Your task to perform on an android device: Search for Mexican restaurants on Maps Image 0: 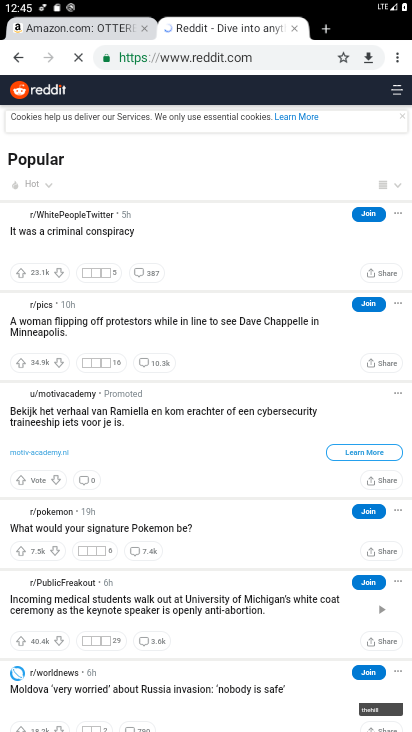
Step 0: press home button
Your task to perform on an android device: Search for Mexican restaurants on Maps Image 1: 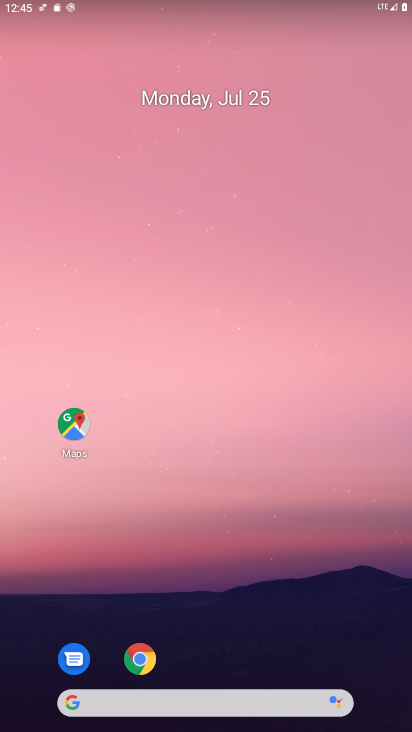
Step 1: click (74, 424)
Your task to perform on an android device: Search for Mexican restaurants on Maps Image 2: 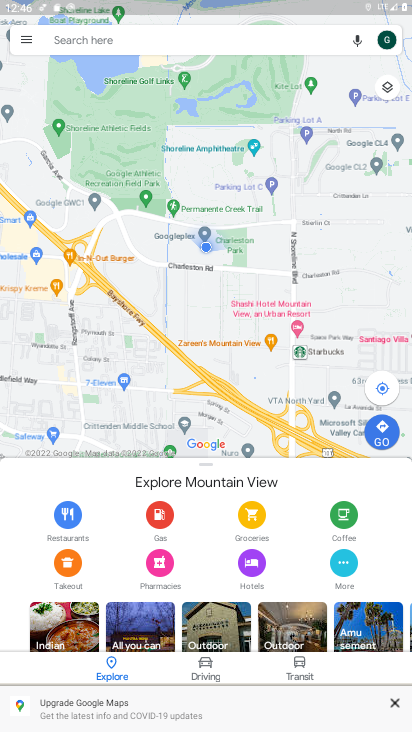
Step 2: click (92, 38)
Your task to perform on an android device: Search for Mexican restaurants on Maps Image 3: 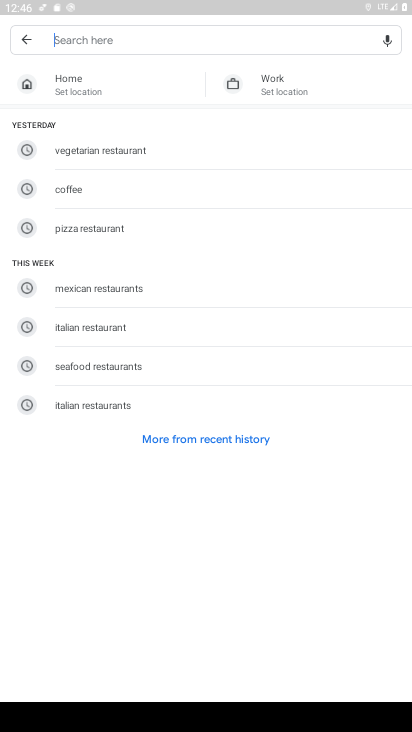
Step 3: type "mexica"
Your task to perform on an android device: Search for Mexican restaurants on Maps Image 4: 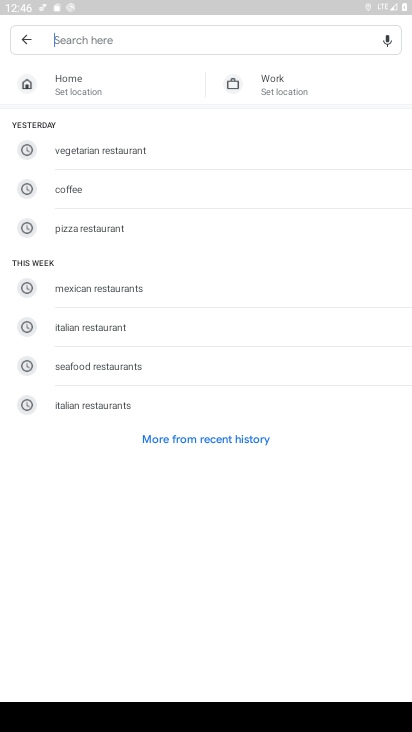
Step 4: click (114, 293)
Your task to perform on an android device: Search for Mexican restaurants on Maps Image 5: 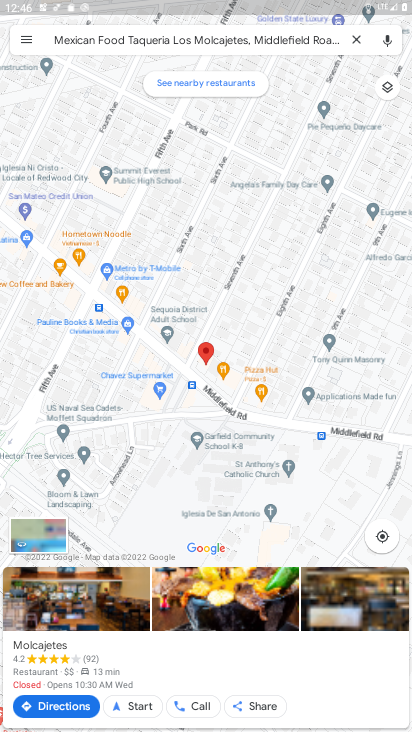
Step 5: task complete